Your task to perform on an android device: delete the emails in spam in the gmail app Image 0: 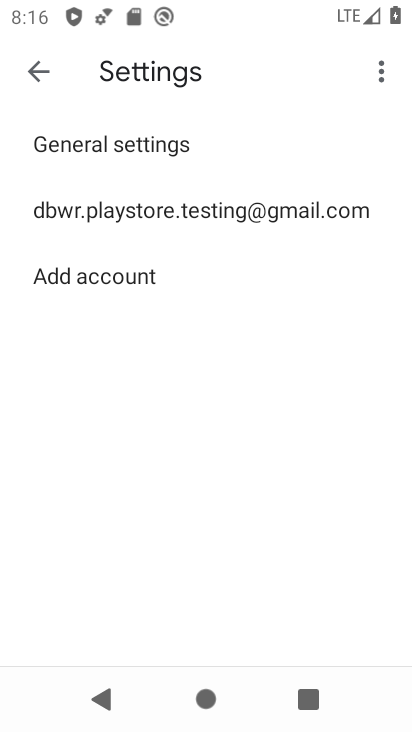
Step 0: press back button
Your task to perform on an android device: delete the emails in spam in the gmail app Image 1: 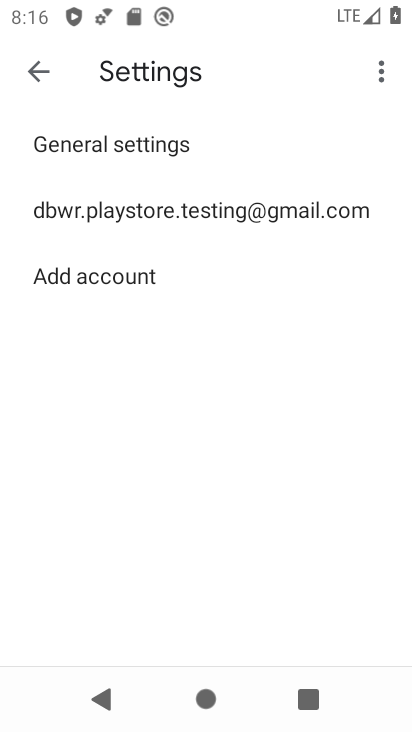
Step 1: press back button
Your task to perform on an android device: delete the emails in spam in the gmail app Image 2: 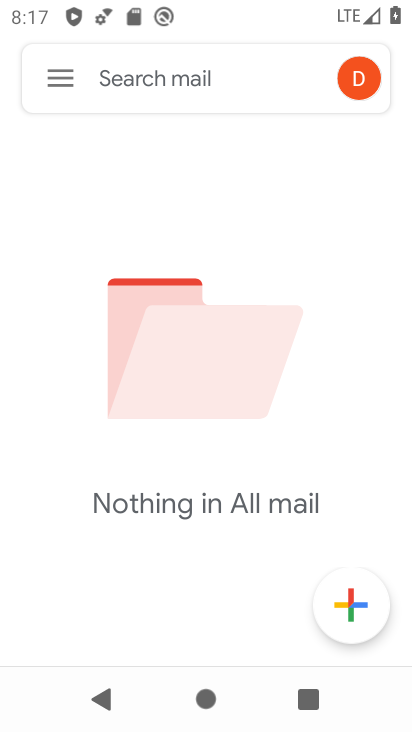
Step 2: click (58, 77)
Your task to perform on an android device: delete the emails in spam in the gmail app Image 3: 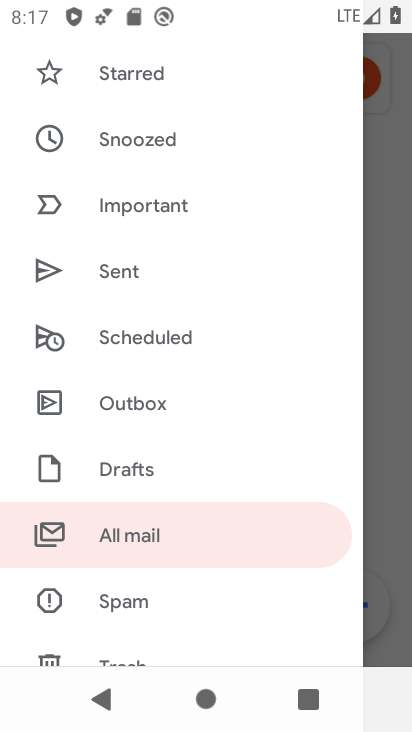
Step 3: click (130, 600)
Your task to perform on an android device: delete the emails in spam in the gmail app Image 4: 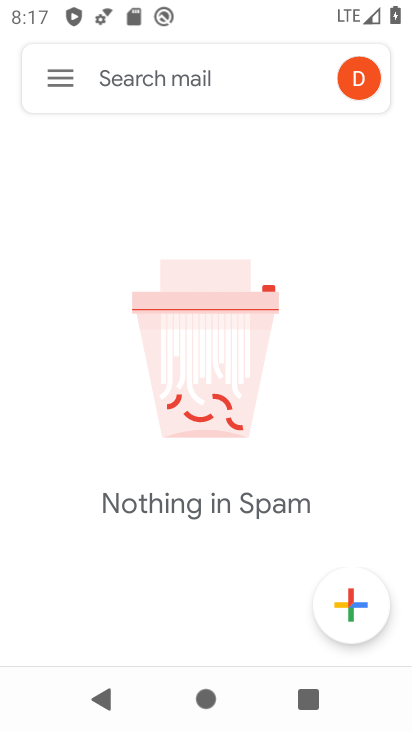
Step 4: task complete